Your task to perform on an android device: Go to display settings Image 0: 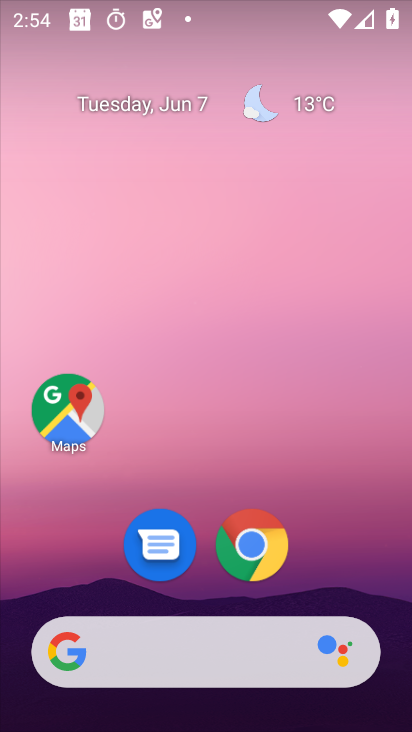
Step 0: drag from (342, 433) to (273, 2)
Your task to perform on an android device: Go to display settings Image 1: 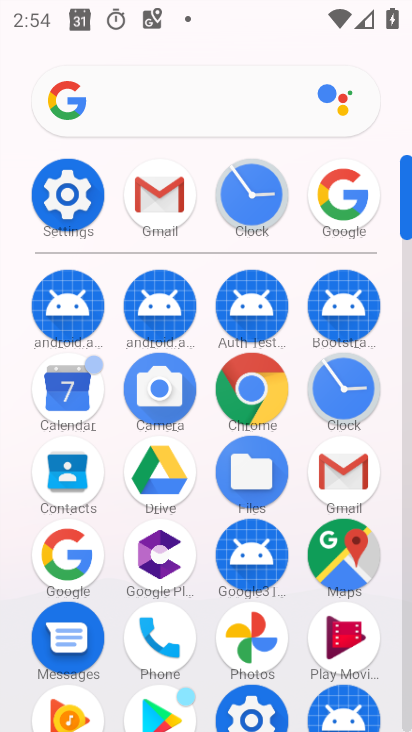
Step 1: click (68, 190)
Your task to perform on an android device: Go to display settings Image 2: 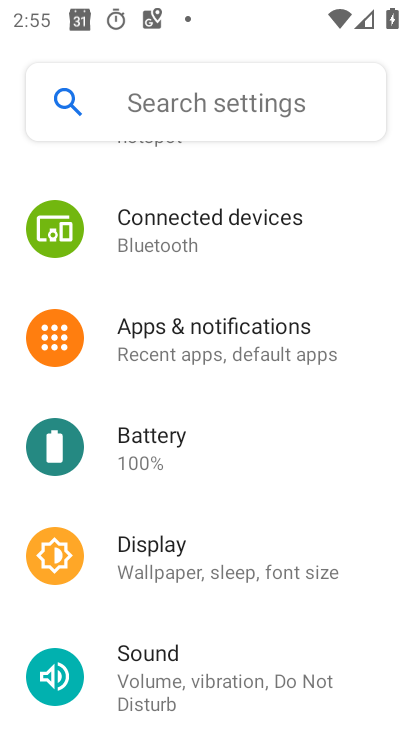
Step 2: click (210, 561)
Your task to perform on an android device: Go to display settings Image 3: 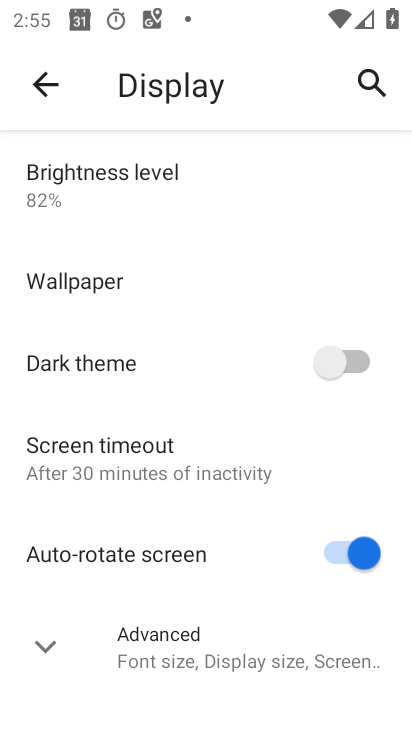
Step 3: task complete